Your task to perform on an android device: toggle airplane mode Image 0: 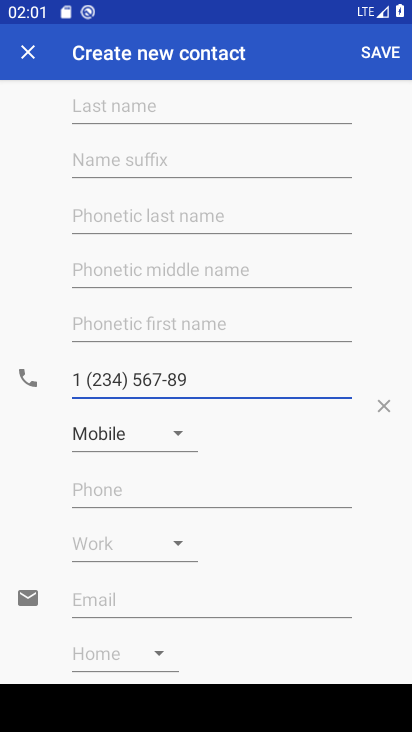
Step 0: press home button
Your task to perform on an android device: toggle airplane mode Image 1: 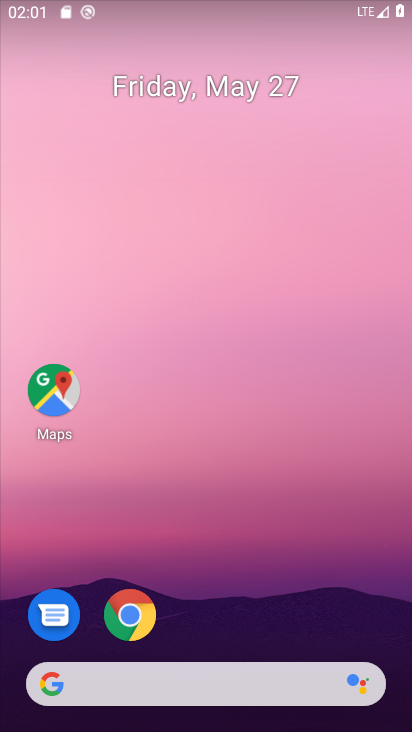
Step 1: drag from (378, 621) to (366, 255)
Your task to perform on an android device: toggle airplane mode Image 2: 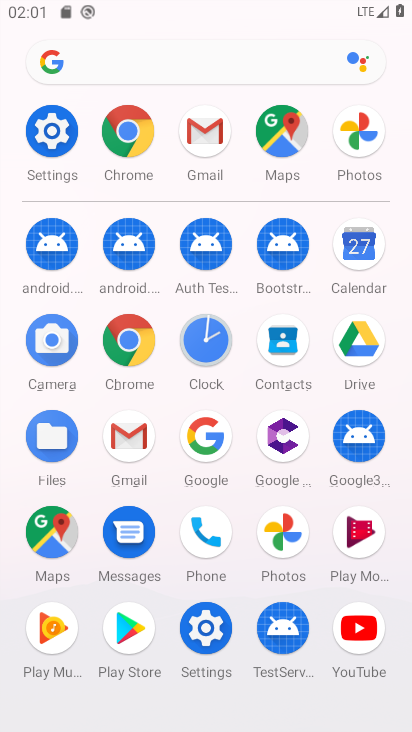
Step 2: click (217, 638)
Your task to perform on an android device: toggle airplane mode Image 3: 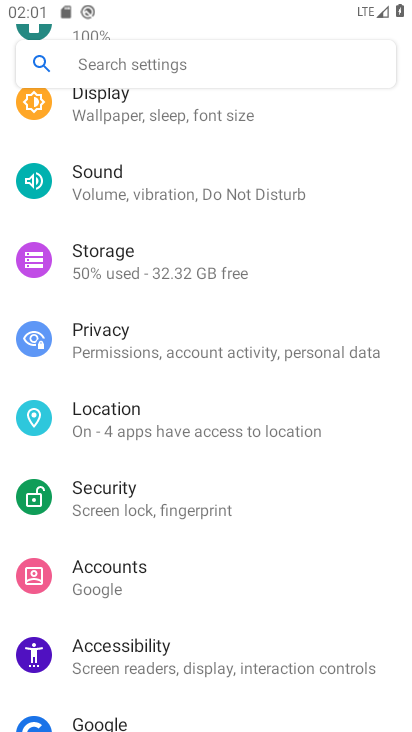
Step 3: drag from (343, 229) to (369, 409)
Your task to perform on an android device: toggle airplane mode Image 4: 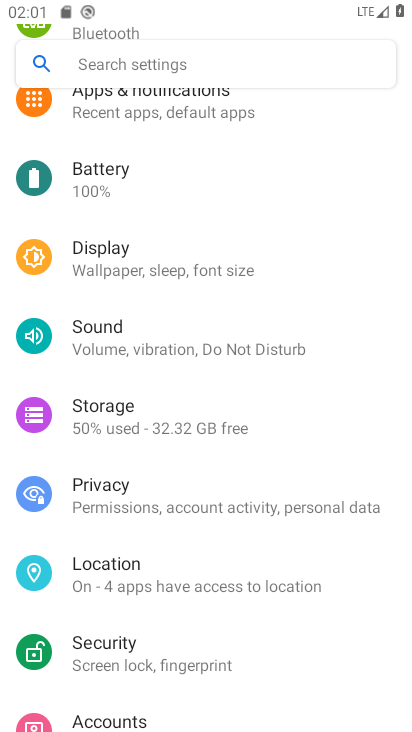
Step 4: drag from (338, 248) to (361, 405)
Your task to perform on an android device: toggle airplane mode Image 5: 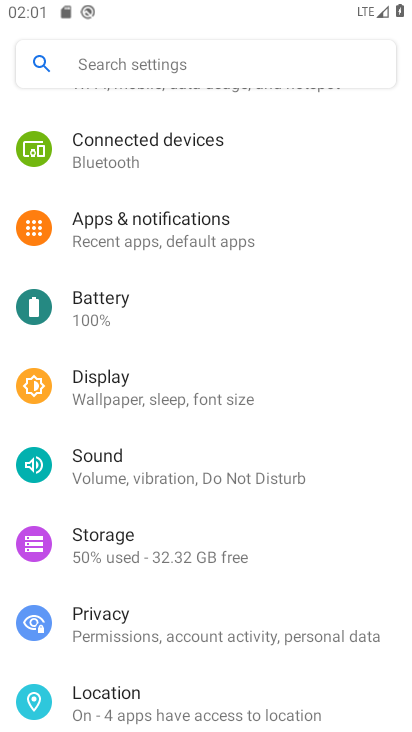
Step 5: drag from (348, 201) to (348, 369)
Your task to perform on an android device: toggle airplane mode Image 6: 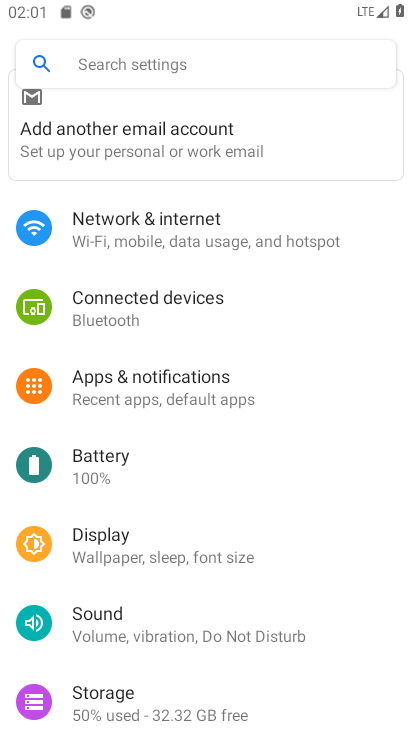
Step 6: drag from (352, 196) to (352, 385)
Your task to perform on an android device: toggle airplane mode Image 7: 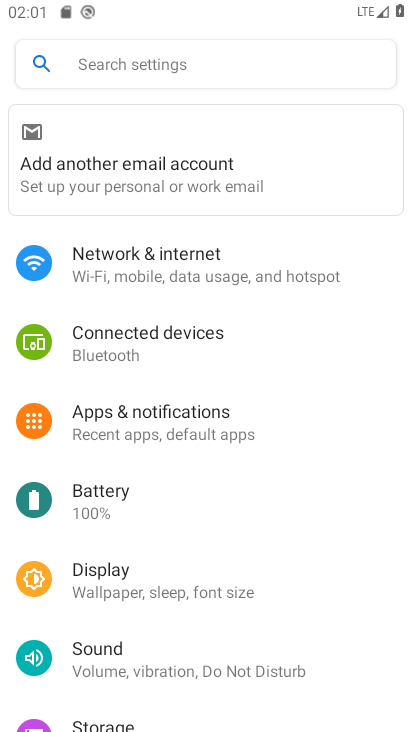
Step 7: drag from (342, 562) to (343, 462)
Your task to perform on an android device: toggle airplane mode Image 8: 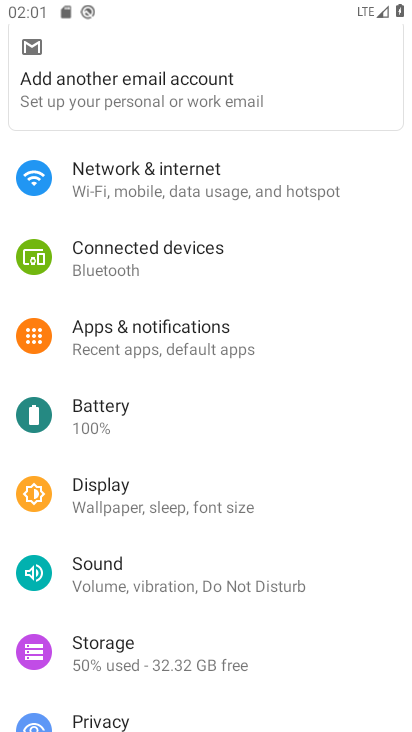
Step 8: drag from (354, 544) to (356, 445)
Your task to perform on an android device: toggle airplane mode Image 9: 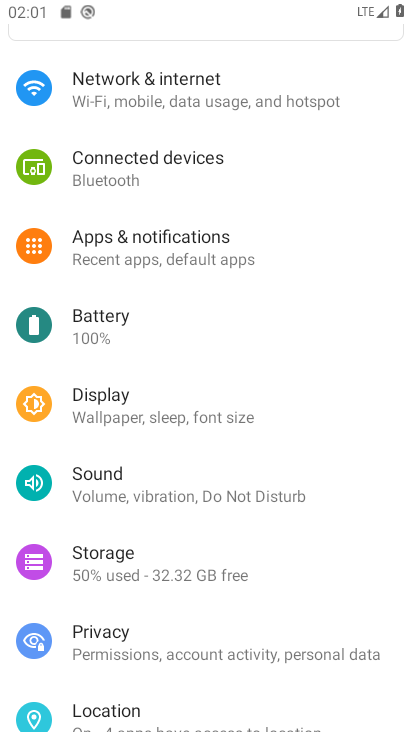
Step 9: drag from (365, 551) to (369, 430)
Your task to perform on an android device: toggle airplane mode Image 10: 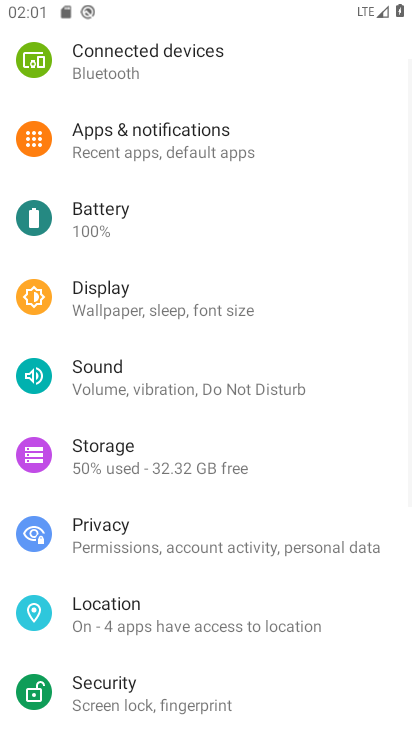
Step 10: drag from (361, 592) to (359, 469)
Your task to perform on an android device: toggle airplane mode Image 11: 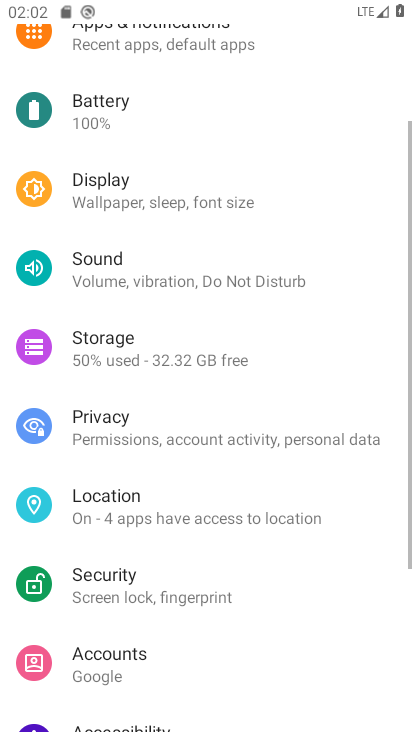
Step 11: drag from (373, 575) to (374, 447)
Your task to perform on an android device: toggle airplane mode Image 12: 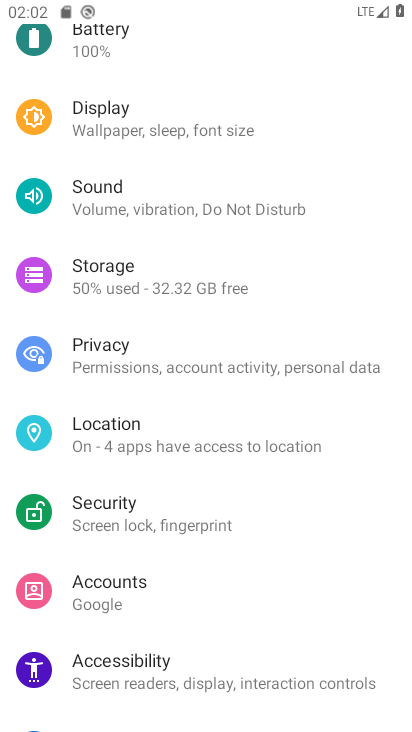
Step 12: drag from (318, 293) to (327, 411)
Your task to perform on an android device: toggle airplane mode Image 13: 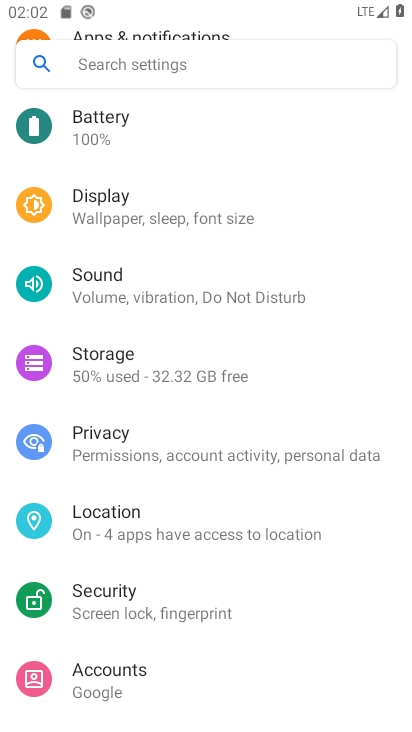
Step 13: drag from (335, 240) to (335, 377)
Your task to perform on an android device: toggle airplane mode Image 14: 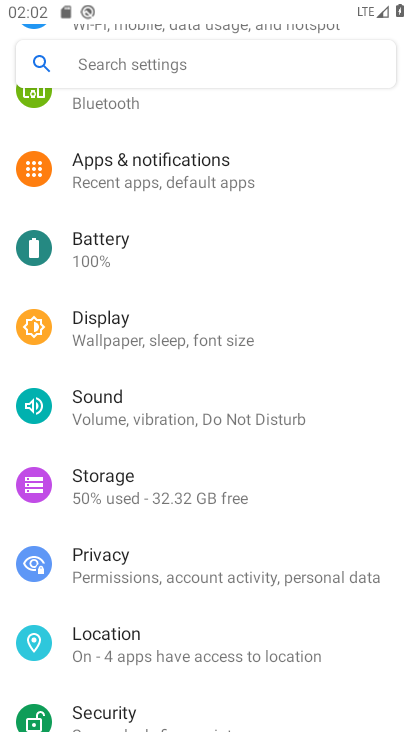
Step 14: drag from (334, 217) to (340, 339)
Your task to perform on an android device: toggle airplane mode Image 15: 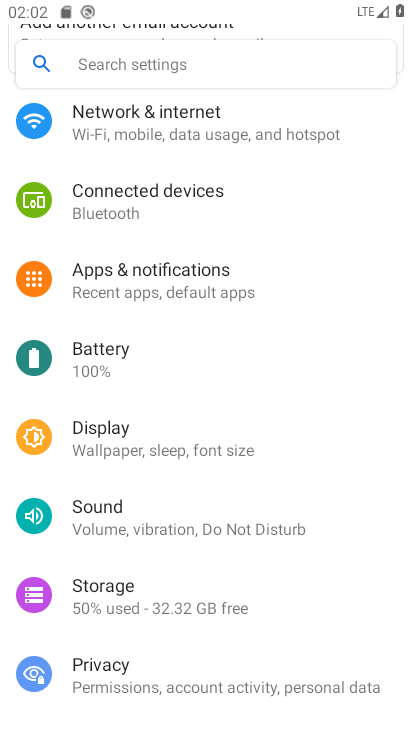
Step 15: drag from (336, 189) to (336, 333)
Your task to perform on an android device: toggle airplane mode Image 16: 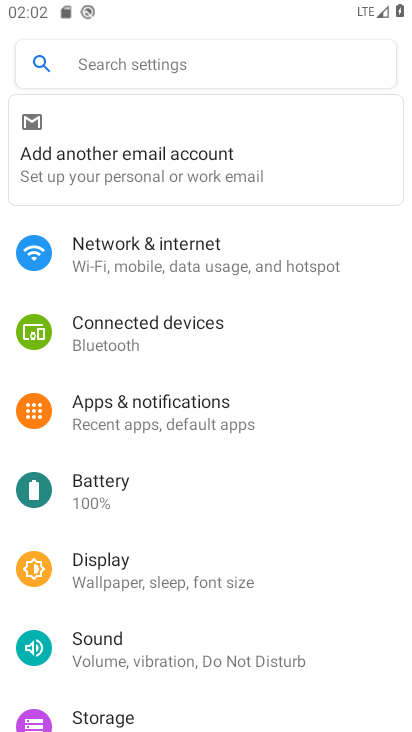
Step 16: click (259, 255)
Your task to perform on an android device: toggle airplane mode Image 17: 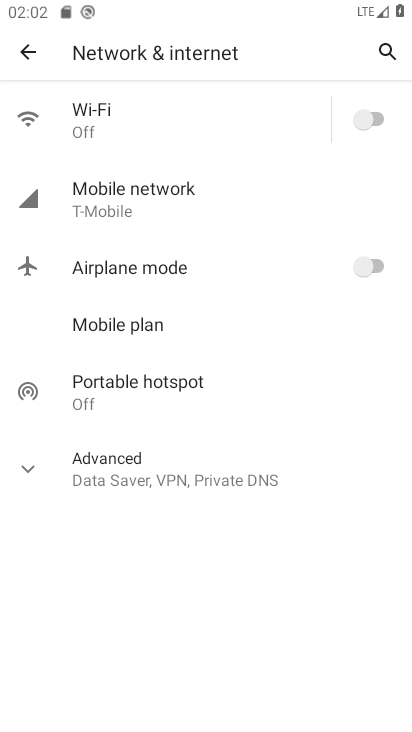
Step 17: click (361, 267)
Your task to perform on an android device: toggle airplane mode Image 18: 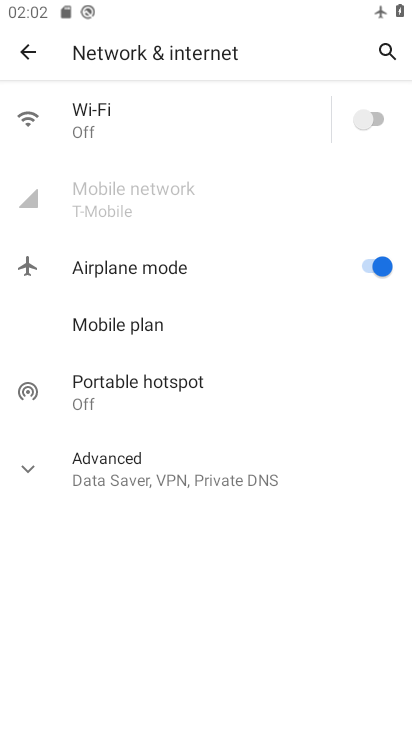
Step 18: task complete